Your task to perform on an android device: Open settings Image 0: 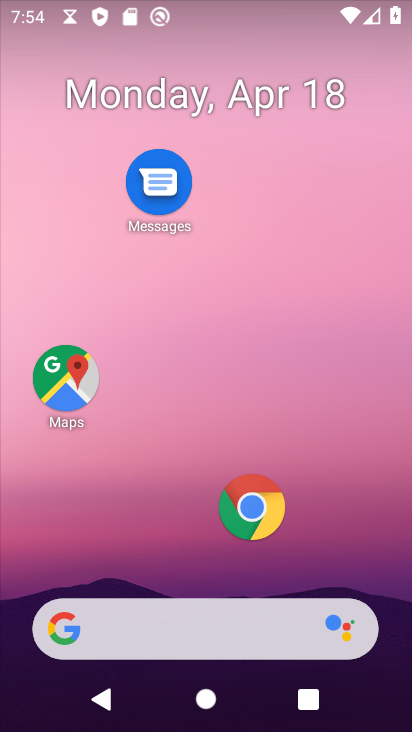
Step 0: drag from (226, 595) to (225, 180)
Your task to perform on an android device: Open settings Image 1: 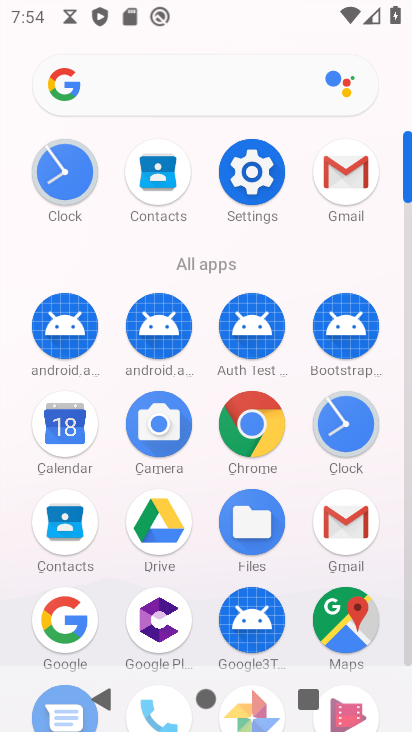
Step 1: click (261, 166)
Your task to perform on an android device: Open settings Image 2: 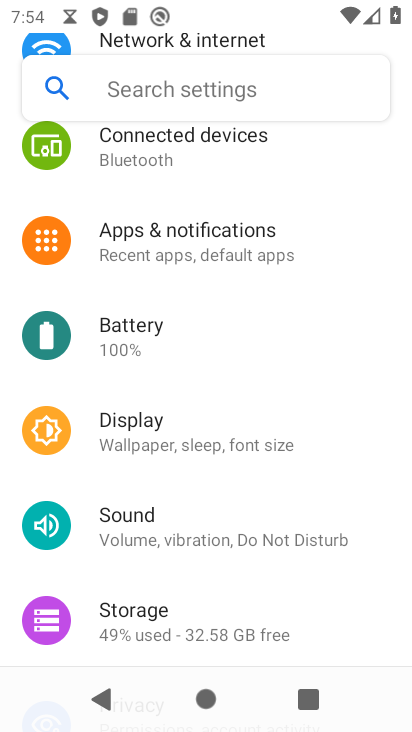
Step 2: task complete